Your task to perform on an android device: Show me productivity apps on the Play Store Image 0: 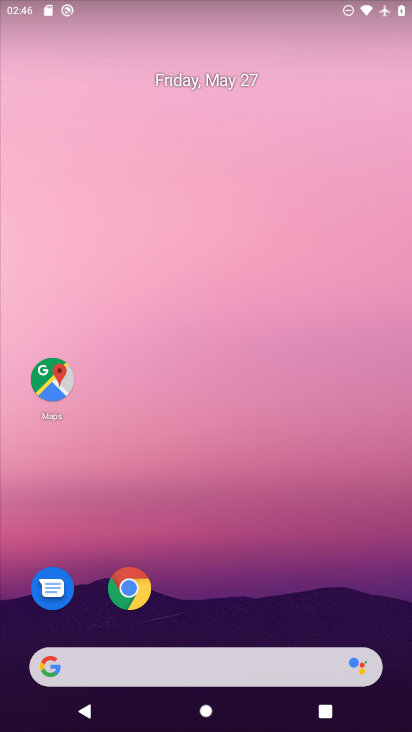
Step 0: drag from (396, 647) to (307, 60)
Your task to perform on an android device: Show me productivity apps on the Play Store Image 1: 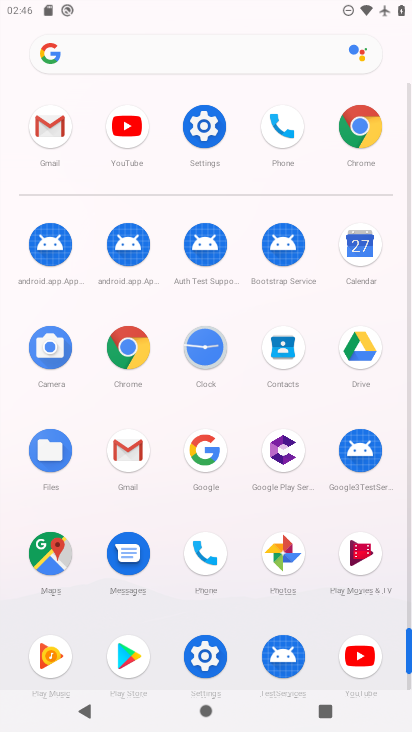
Step 1: click (131, 653)
Your task to perform on an android device: Show me productivity apps on the Play Store Image 2: 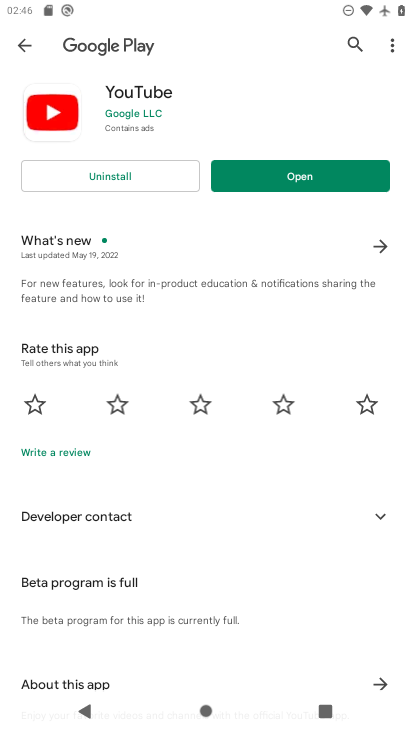
Step 2: press back button
Your task to perform on an android device: Show me productivity apps on the Play Store Image 3: 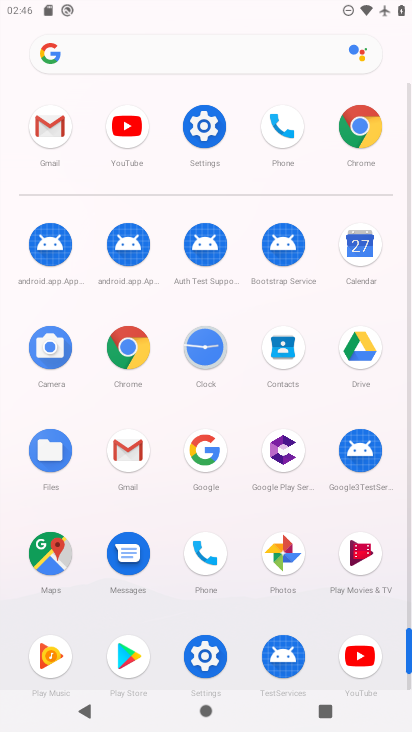
Step 3: click (126, 652)
Your task to perform on an android device: Show me productivity apps on the Play Store Image 4: 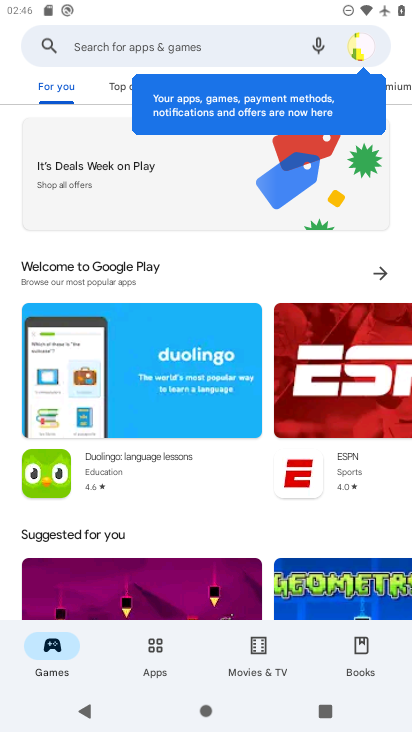
Step 4: click (161, 653)
Your task to perform on an android device: Show me productivity apps on the Play Store Image 5: 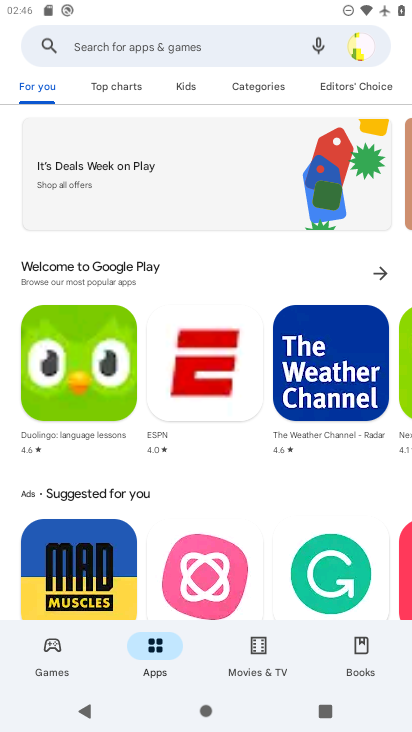
Step 5: click (262, 90)
Your task to perform on an android device: Show me productivity apps on the Play Store Image 6: 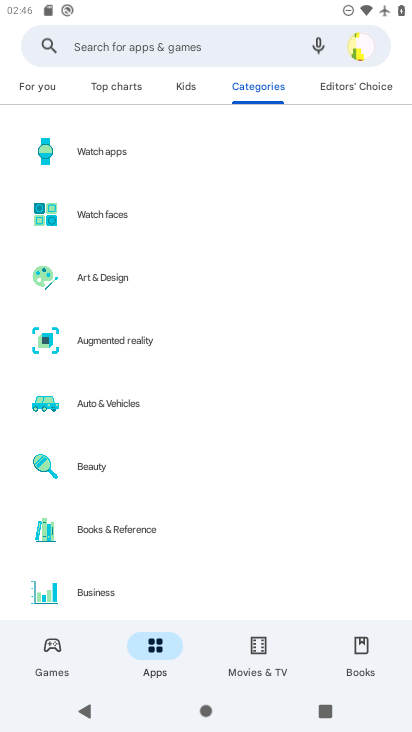
Step 6: drag from (182, 556) to (196, 65)
Your task to perform on an android device: Show me productivity apps on the Play Store Image 7: 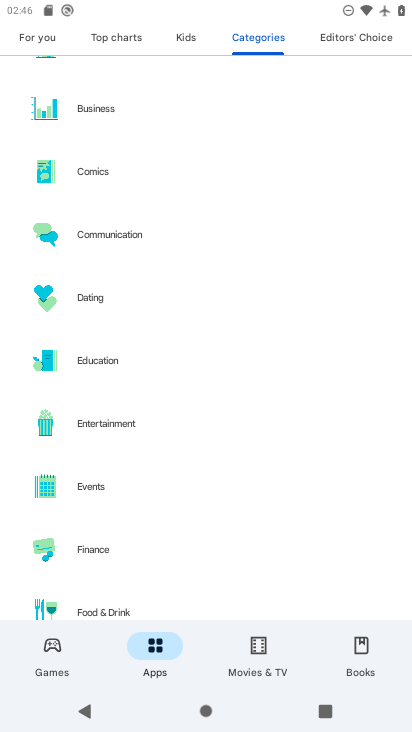
Step 7: drag from (167, 577) to (168, 114)
Your task to perform on an android device: Show me productivity apps on the Play Store Image 8: 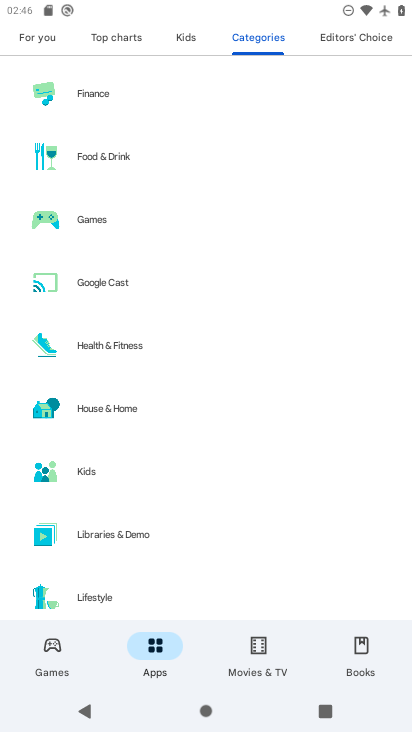
Step 8: drag from (161, 544) to (162, 12)
Your task to perform on an android device: Show me productivity apps on the Play Store Image 9: 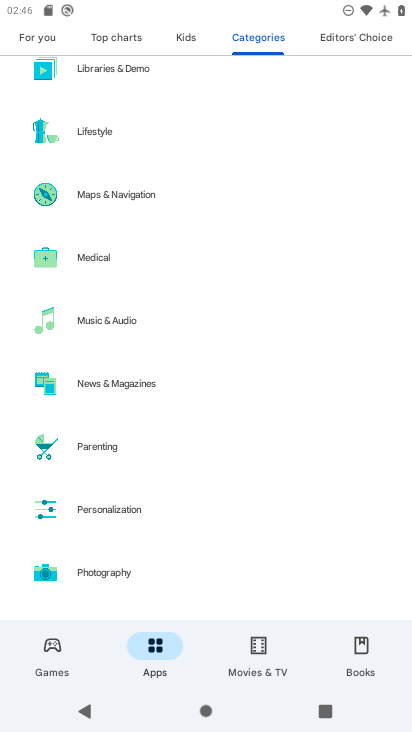
Step 9: drag from (171, 531) to (181, 84)
Your task to perform on an android device: Show me productivity apps on the Play Store Image 10: 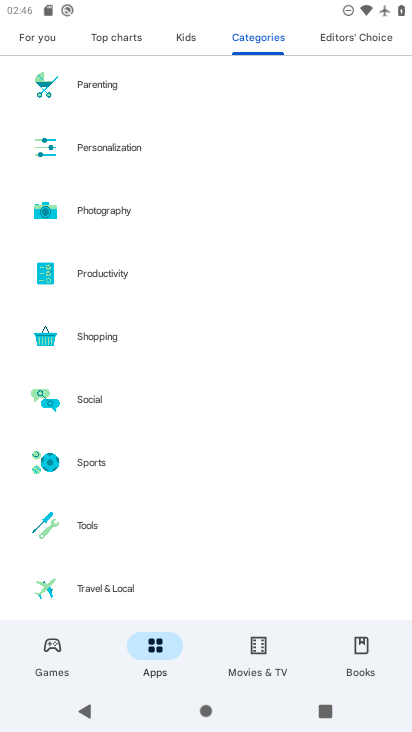
Step 10: click (101, 277)
Your task to perform on an android device: Show me productivity apps on the Play Store Image 11: 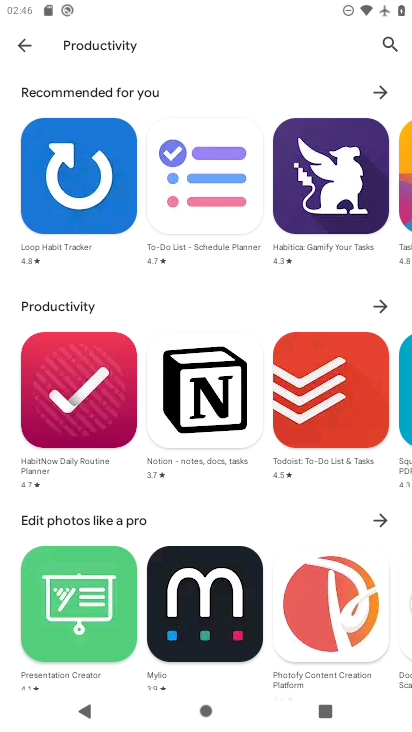
Step 11: click (380, 301)
Your task to perform on an android device: Show me productivity apps on the Play Store Image 12: 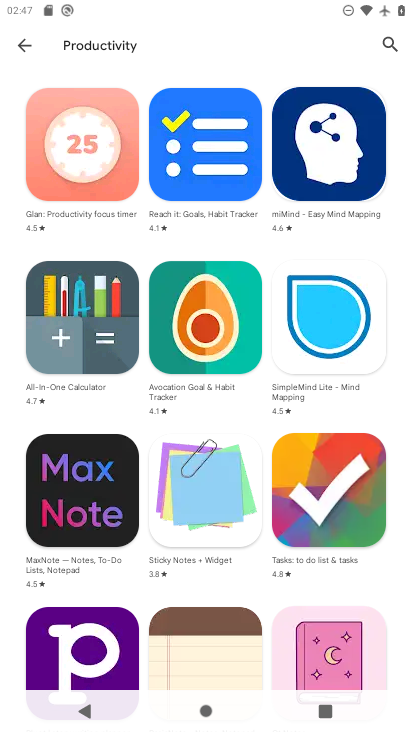
Step 12: task complete